Your task to perform on an android device: check data usage Image 0: 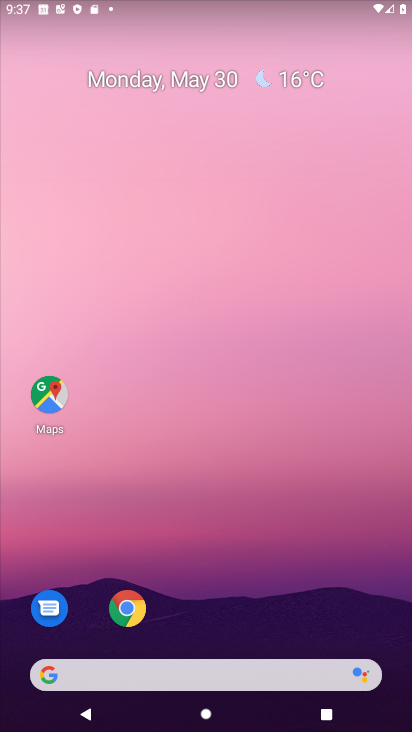
Step 0: drag from (391, 687) to (359, 127)
Your task to perform on an android device: check data usage Image 1: 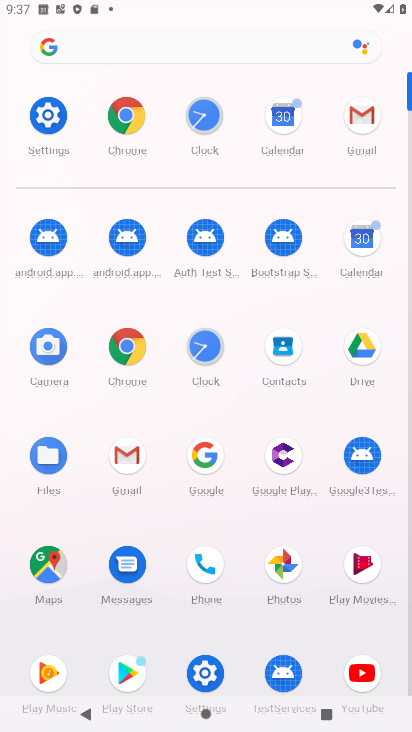
Step 1: click (40, 121)
Your task to perform on an android device: check data usage Image 2: 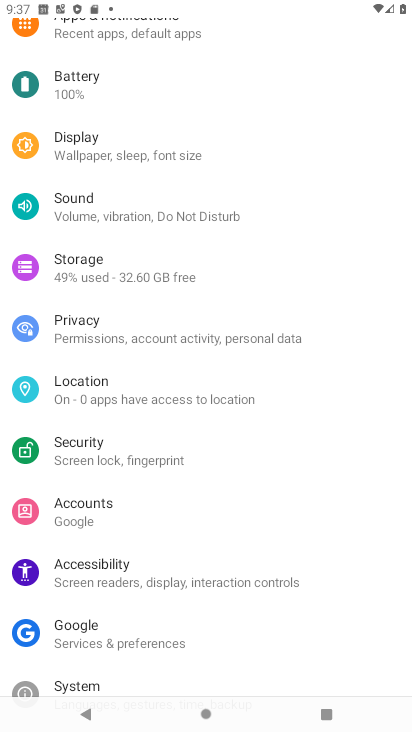
Step 2: drag from (298, 633) to (314, 281)
Your task to perform on an android device: check data usage Image 3: 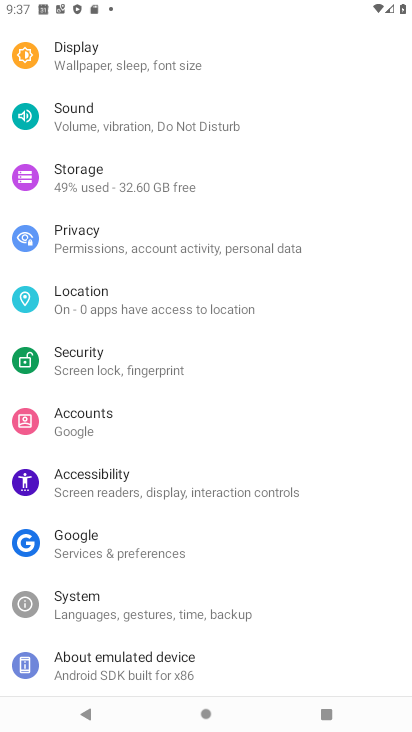
Step 3: drag from (329, 181) to (311, 555)
Your task to perform on an android device: check data usage Image 4: 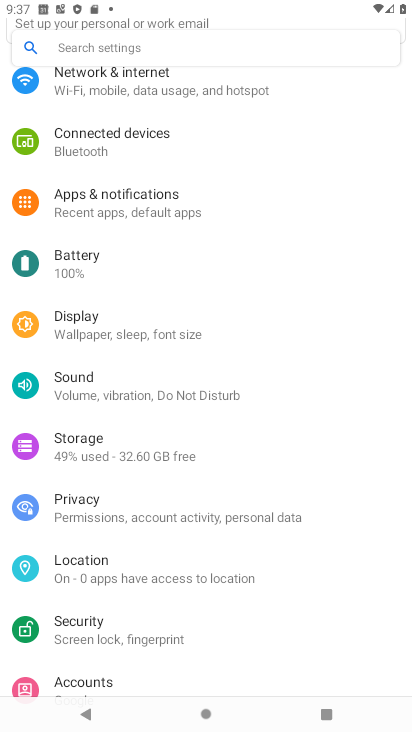
Step 4: drag from (257, 138) to (268, 481)
Your task to perform on an android device: check data usage Image 5: 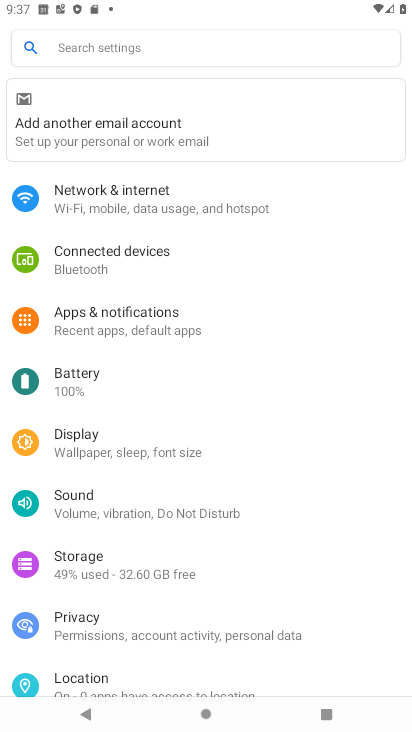
Step 5: click (89, 202)
Your task to perform on an android device: check data usage Image 6: 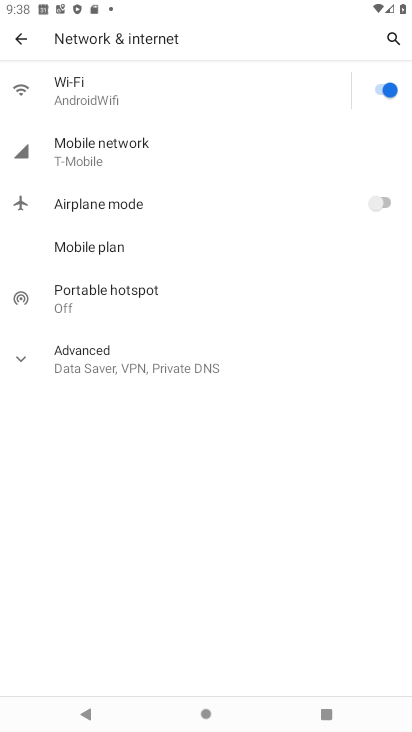
Step 6: click (86, 143)
Your task to perform on an android device: check data usage Image 7: 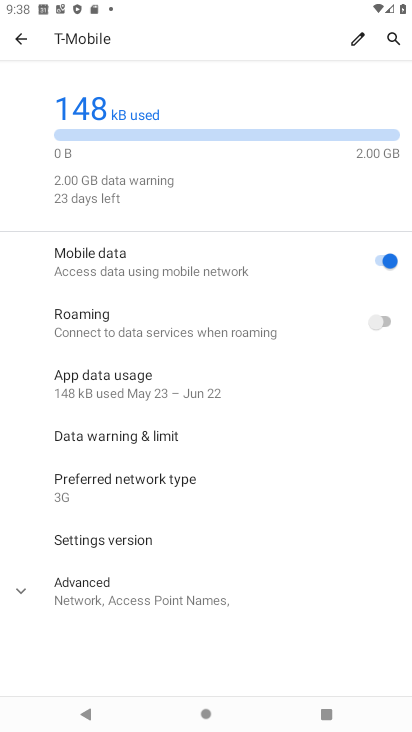
Step 7: task complete